Your task to perform on an android device: Go to ESPN.com Image 0: 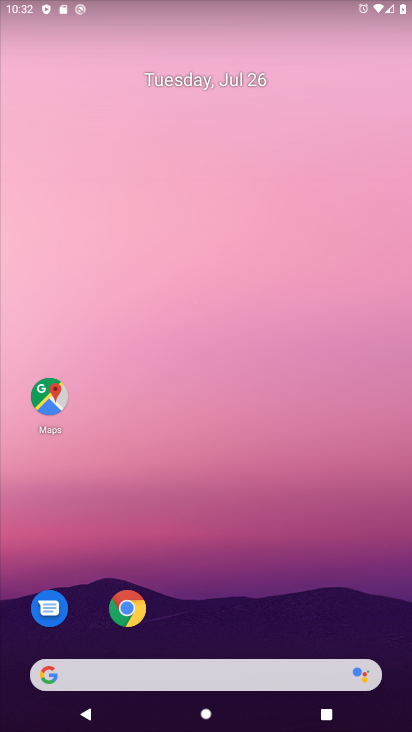
Step 0: click (132, 608)
Your task to perform on an android device: Go to ESPN.com Image 1: 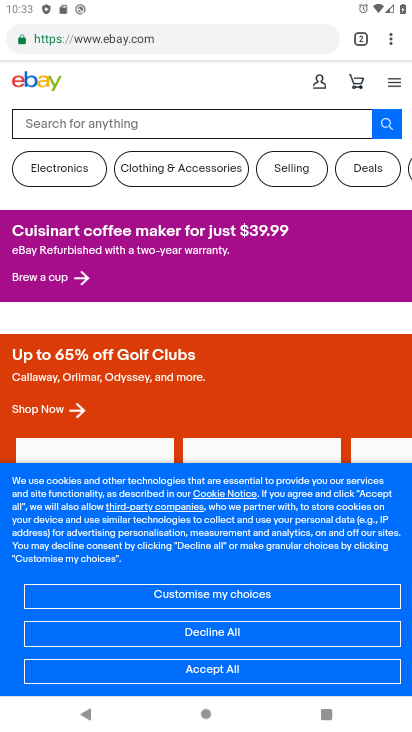
Step 1: click (390, 46)
Your task to perform on an android device: Go to ESPN.com Image 2: 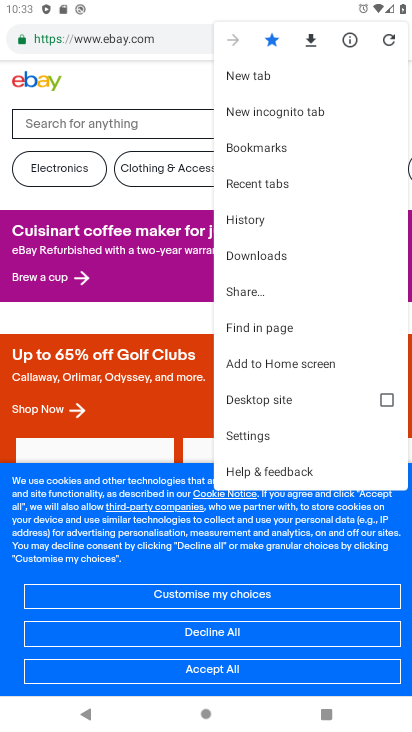
Step 2: click (255, 74)
Your task to perform on an android device: Go to ESPN.com Image 3: 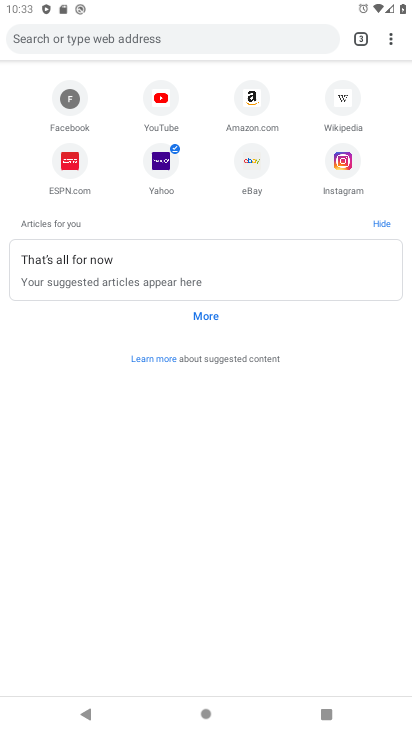
Step 3: click (67, 158)
Your task to perform on an android device: Go to ESPN.com Image 4: 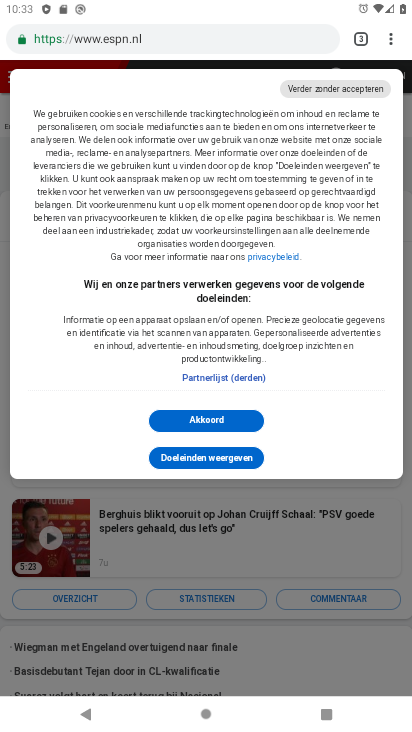
Step 4: click (179, 415)
Your task to perform on an android device: Go to ESPN.com Image 5: 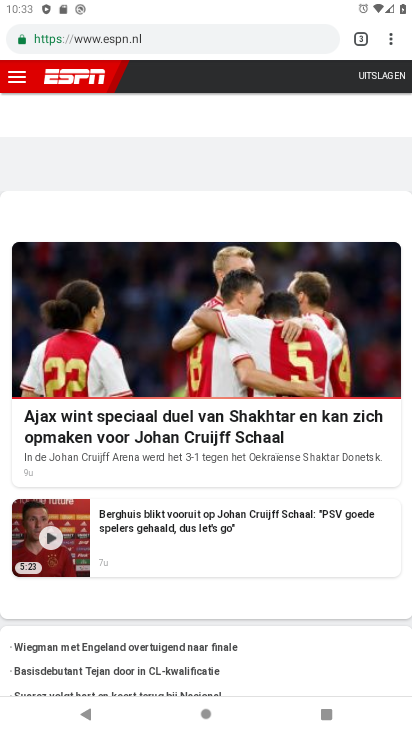
Step 5: task complete